Your task to perform on an android device: Open Reddit.com Image 0: 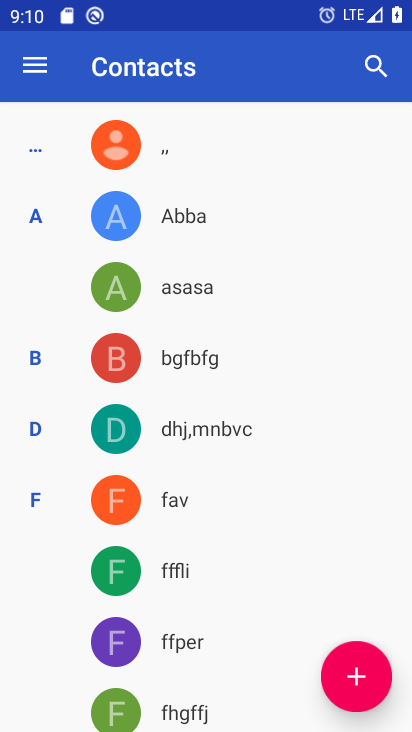
Step 0: press home button
Your task to perform on an android device: Open Reddit.com Image 1: 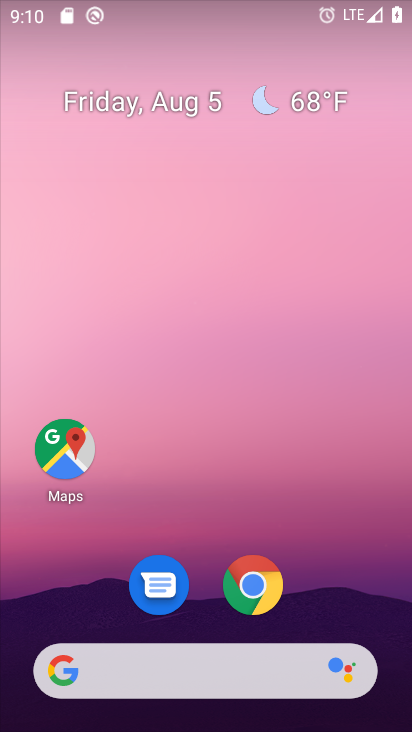
Step 1: click (225, 671)
Your task to perform on an android device: Open Reddit.com Image 2: 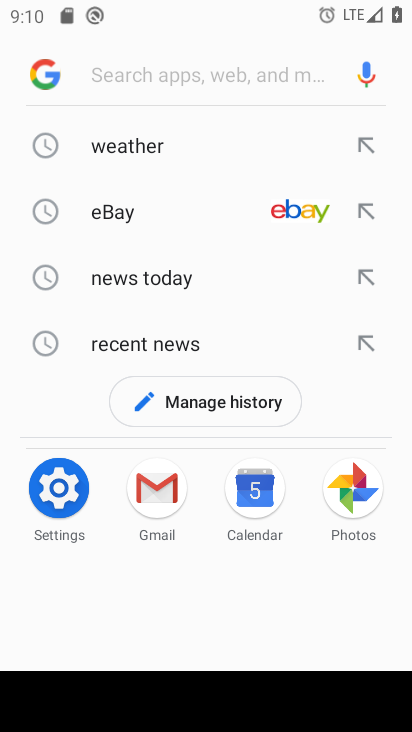
Step 2: type "reddit.com"
Your task to perform on an android device: Open Reddit.com Image 3: 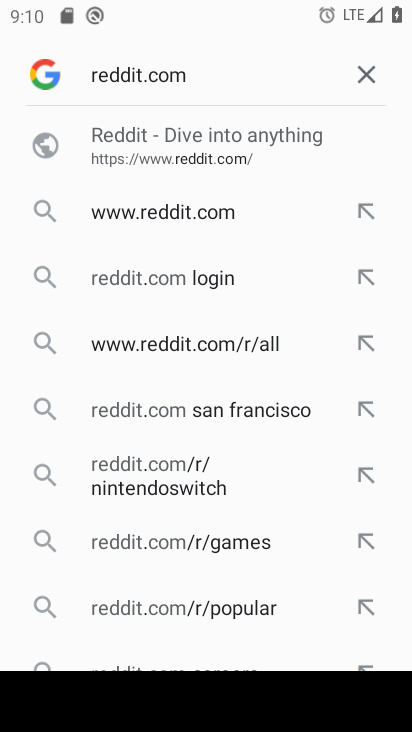
Step 3: click (236, 155)
Your task to perform on an android device: Open Reddit.com Image 4: 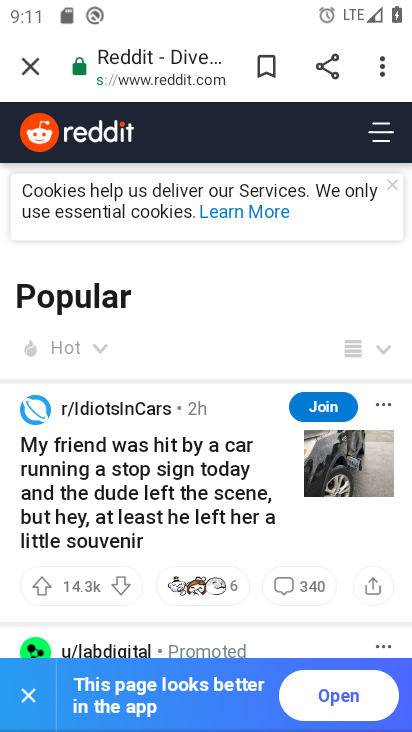
Step 4: task complete